Your task to perform on an android device: open sync settings in chrome Image 0: 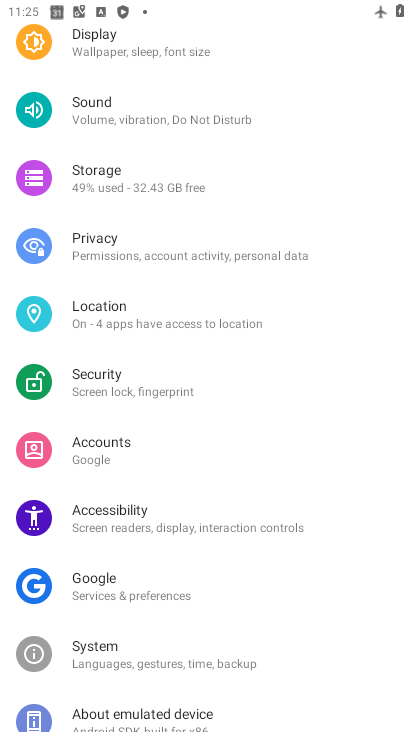
Step 0: press home button
Your task to perform on an android device: open sync settings in chrome Image 1: 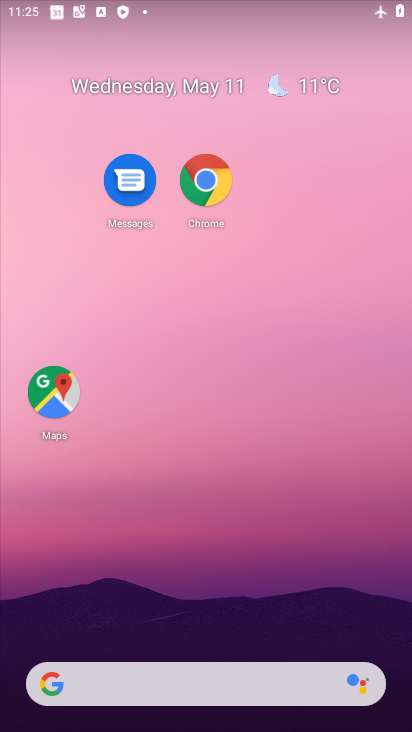
Step 1: drag from (274, 607) to (262, 219)
Your task to perform on an android device: open sync settings in chrome Image 2: 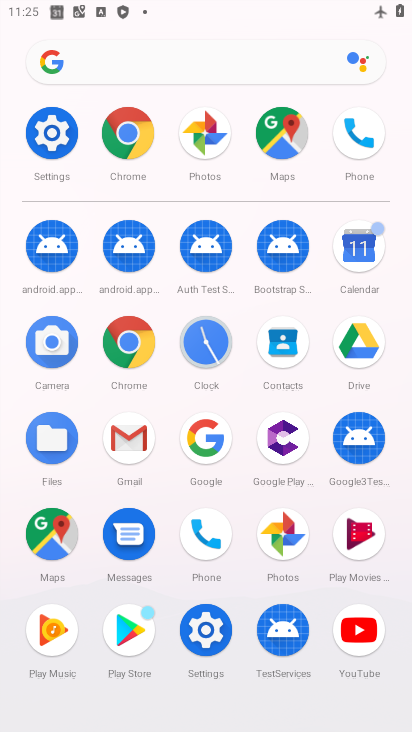
Step 2: click (141, 352)
Your task to perform on an android device: open sync settings in chrome Image 3: 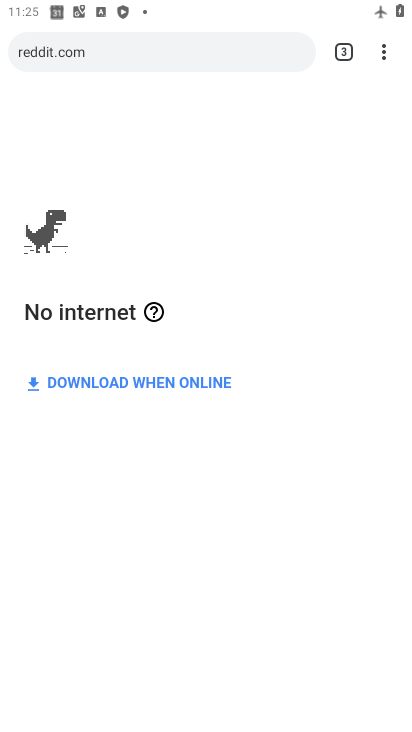
Step 3: click (386, 57)
Your task to perform on an android device: open sync settings in chrome Image 4: 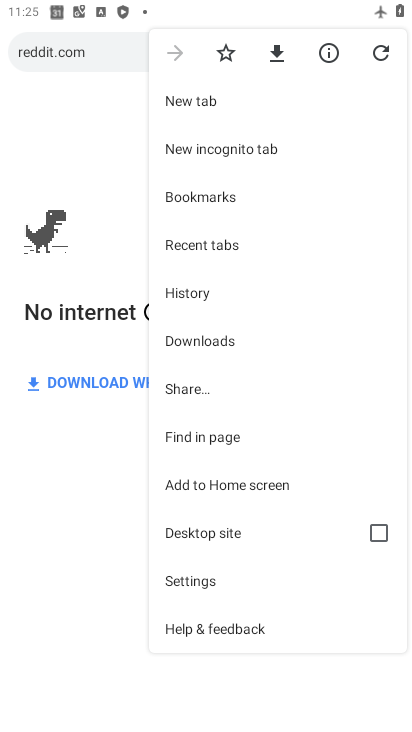
Step 4: click (225, 584)
Your task to perform on an android device: open sync settings in chrome Image 5: 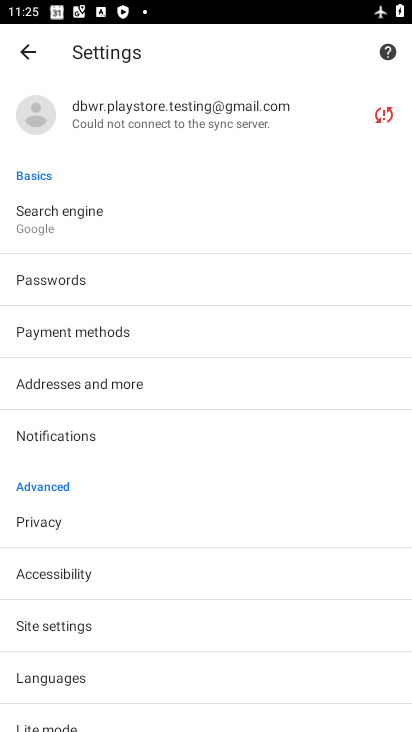
Step 5: click (197, 114)
Your task to perform on an android device: open sync settings in chrome Image 6: 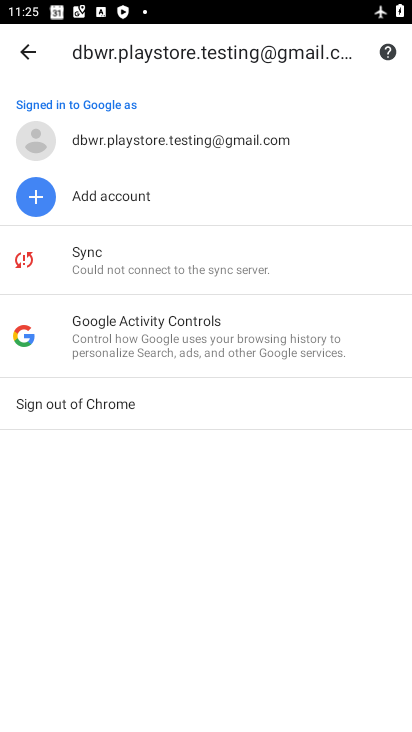
Step 6: click (172, 261)
Your task to perform on an android device: open sync settings in chrome Image 7: 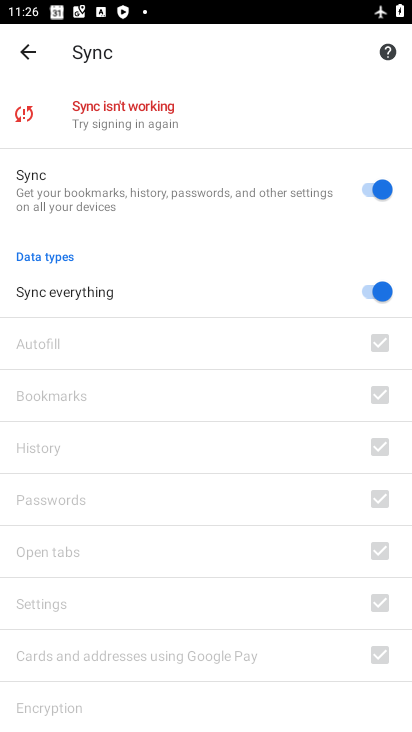
Step 7: task complete